Your task to perform on an android device: When is my next meeting? Image 0: 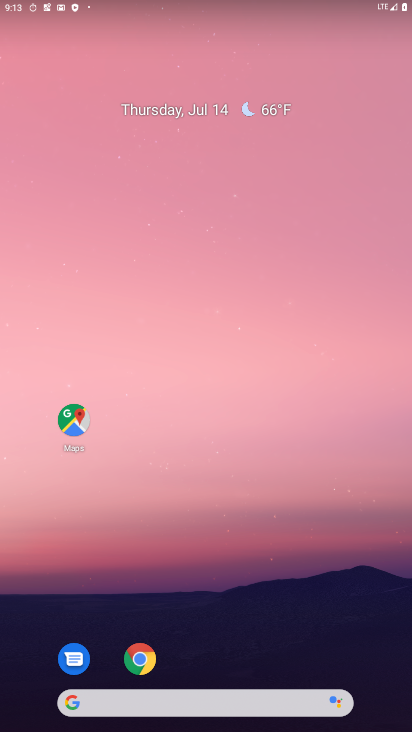
Step 0: press home button
Your task to perform on an android device: When is my next meeting? Image 1: 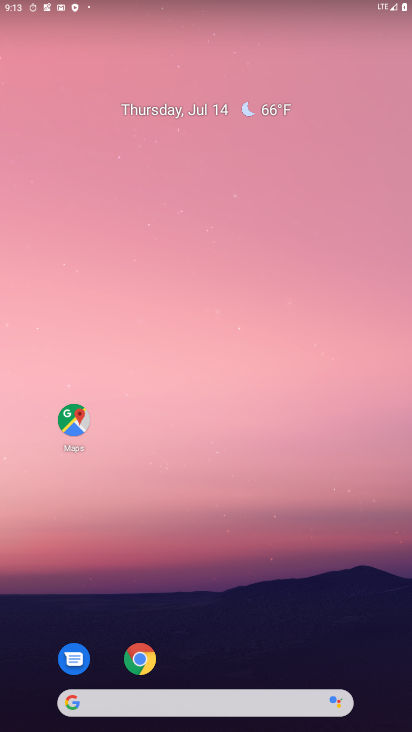
Step 1: drag from (291, 619) to (300, 12)
Your task to perform on an android device: When is my next meeting? Image 2: 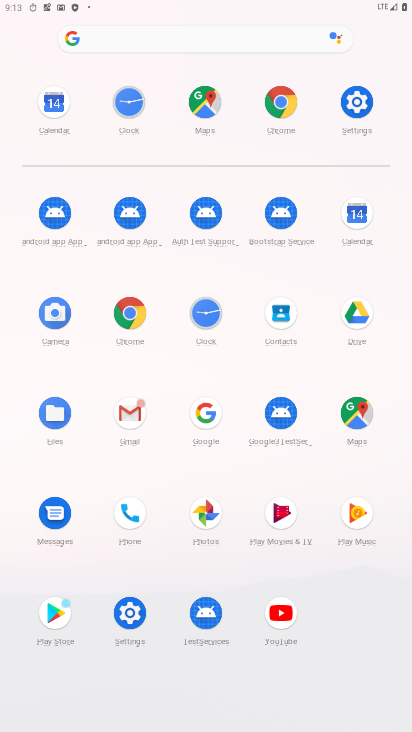
Step 2: click (352, 209)
Your task to perform on an android device: When is my next meeting? Image 3: 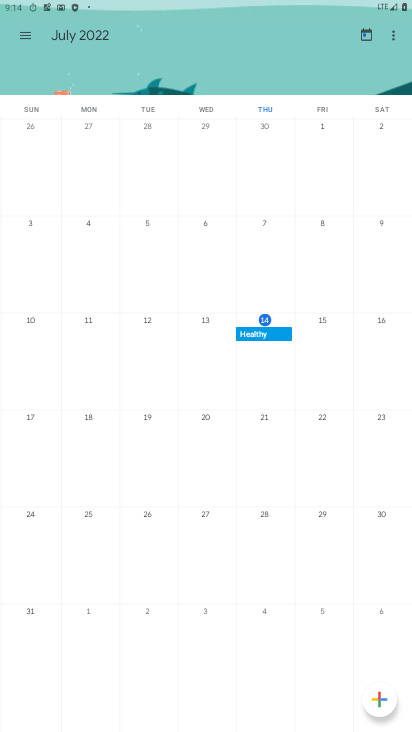
Step 3: click (20, 30)
Your task to perform on an android device: When is my next meeting? Image 4: 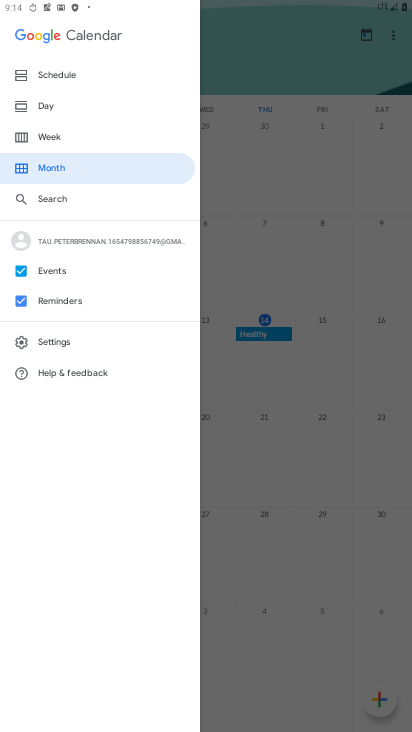
Step 4: click (59, 69)
Your task to perform on an android device: When is my next meeting? Image 5: 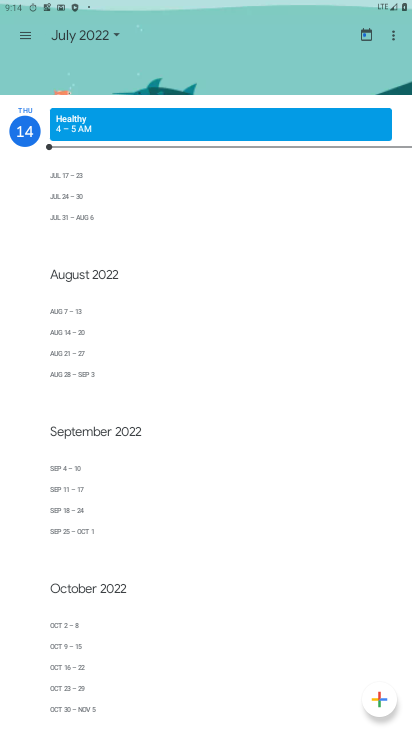
Step 5: task complete